Your task to perform on an android device: check the backup settings in the google photos Image 0: 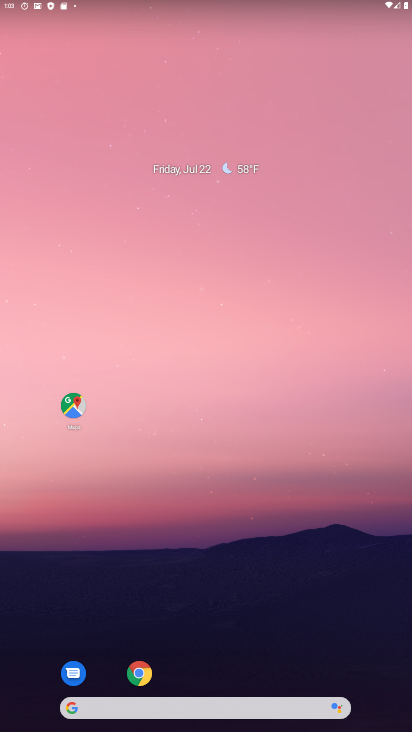
Step 0: drag from (207, 626) to (198, 91)
Your task to perform on an android device: check the backup settings in the google photos Image 1: 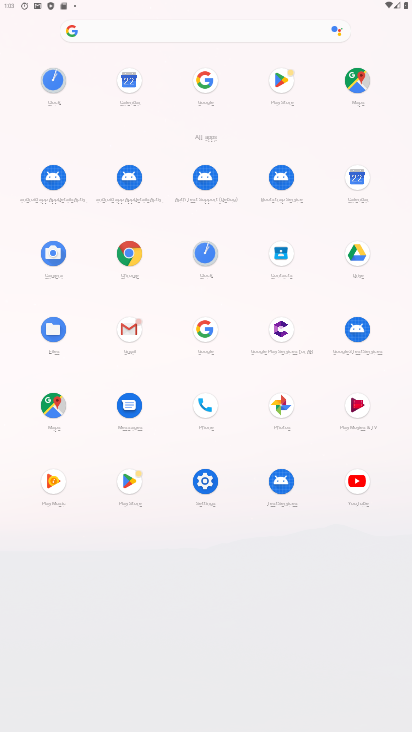
Step 1: click (282, 402)
Your task to perform on an android device: check the backup settings in the google photos Image 2: 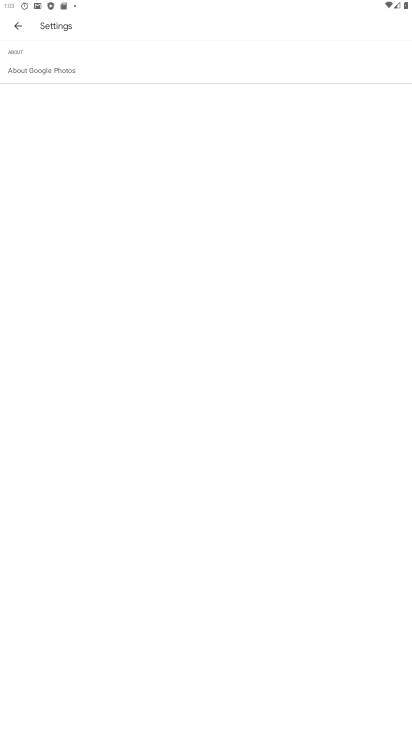
Step 2: click (16, 27)
Your task to perform on an android device: check the backup settings in the google photos Image 3: 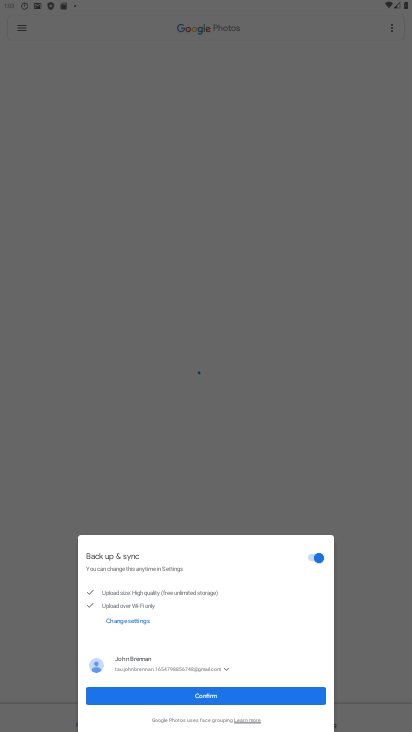
Step 3: click (214, 702)
Your task to perform on an android device: check the backup settings in the google photos Image 4: 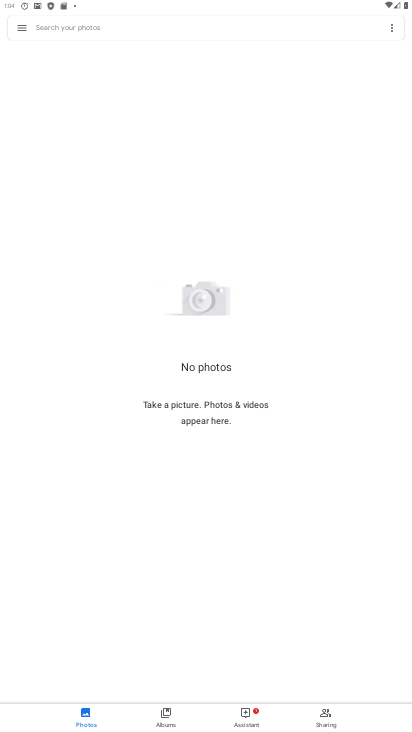
Step 4: click (25, 31)
Your task to perform on an android device: check the backup settings in the google photos Image 5: 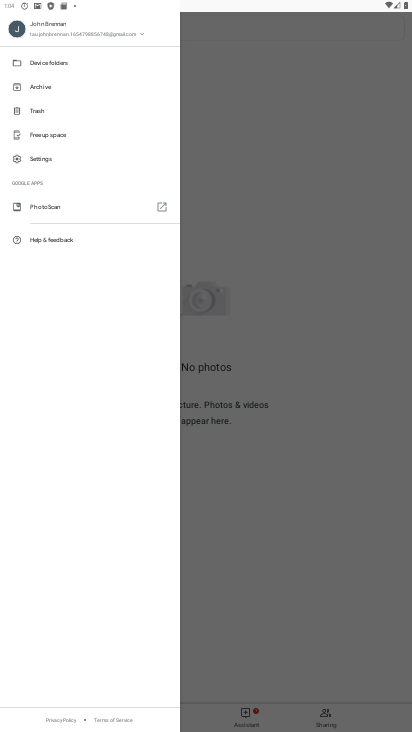
Step 5: click (55, 156)
Your task to perform on an android device: check the backup settings in the google photos Image 6: 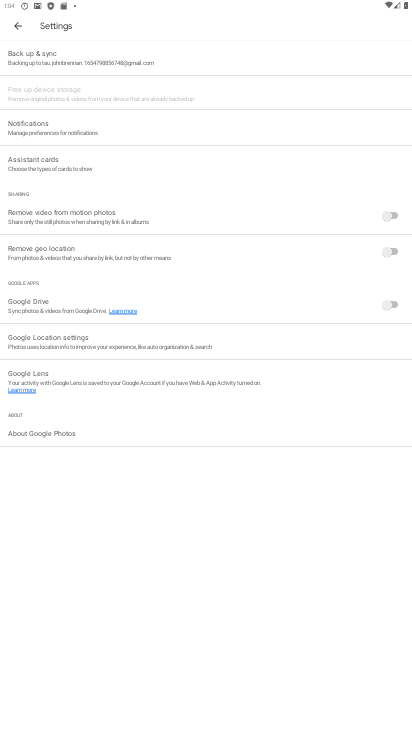
Step 6: click (154, 49)
Your task to perform on an android device: check the backup settings in the google photos Image 7: 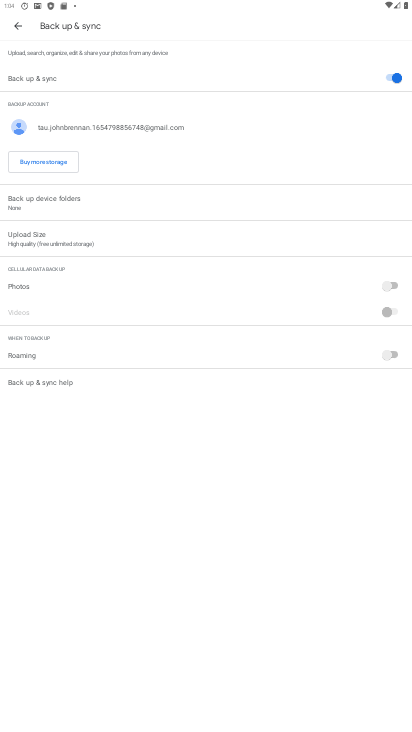
Step 7: task complete